Your task to perform on an android device: Go to Yahoo.com Image 0: 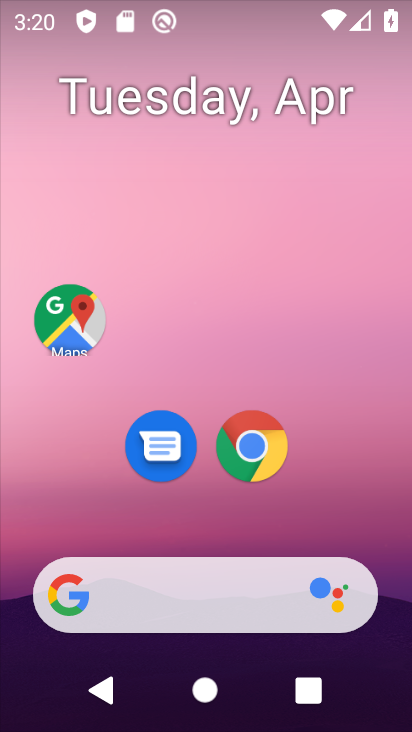
Step 0: drag from (284, 502) to (313, 109)
Your task to perform on an android device: Go to Yahoo.com Image 1: 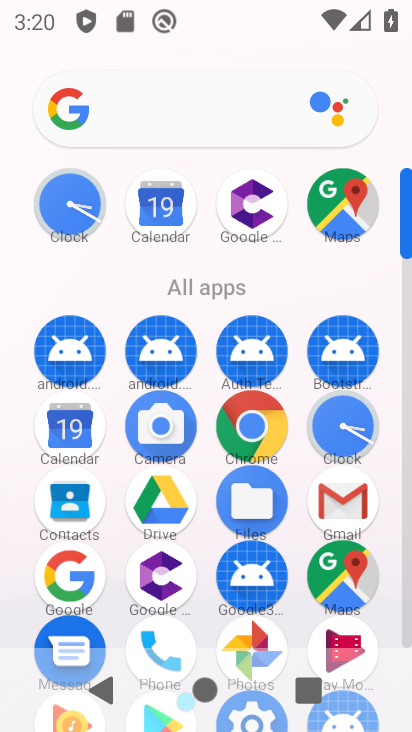
Step 1: click (243, 420)
Your task to perform on an android device: Go to Yahoo.com Image 2: 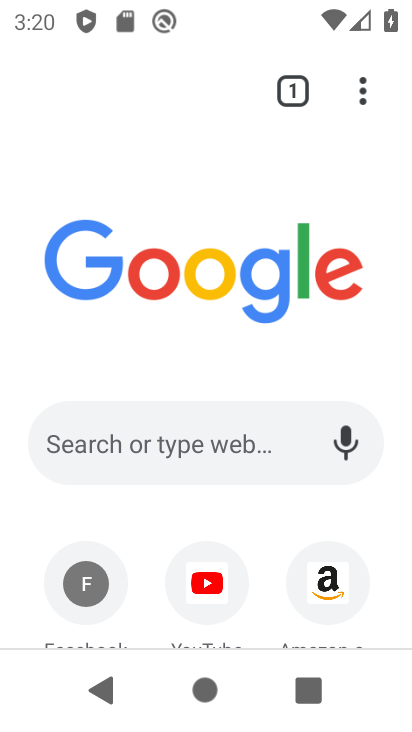
Step 2: click (164, 441)
Your task to perform on an android device: Go to Yahoo.com Image 3: 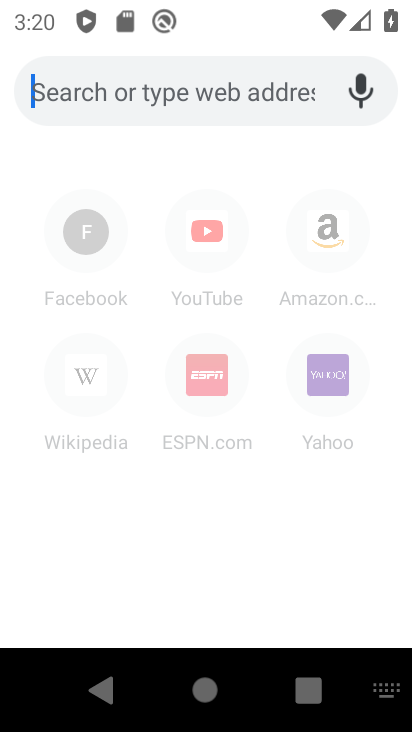
Step 3: type " Yahoo.com"
Your task to perform on an android device: Go to Yahoo.com Image 4: 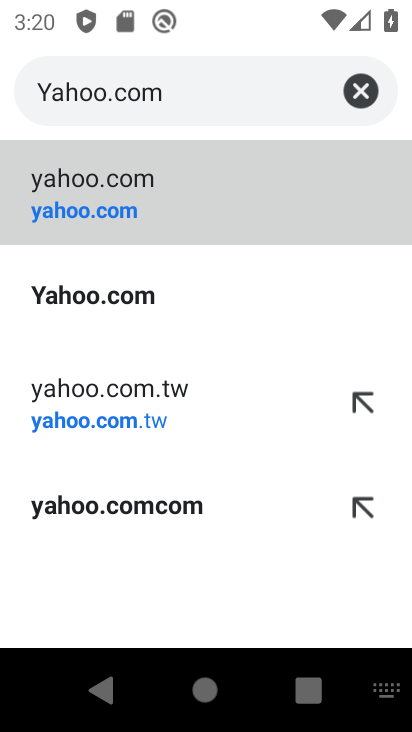
Step 4: click (104, 214)
Your task to perform on an android device: Go to Yahoo.com Image 5: 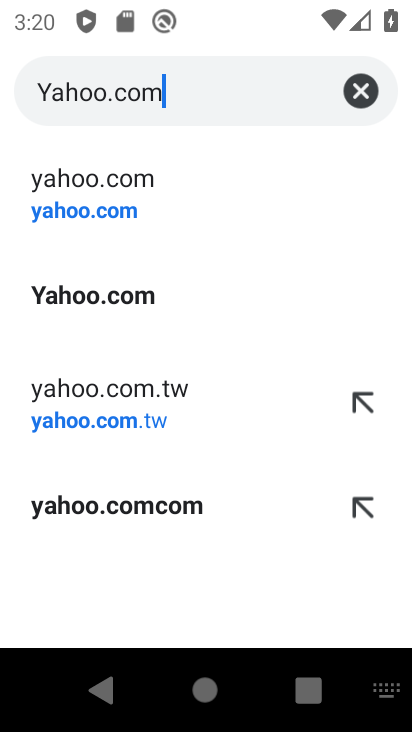
Step 5: click (76, 205)
Your task to perform on an android device: Go to Yahoo.com Image 6: 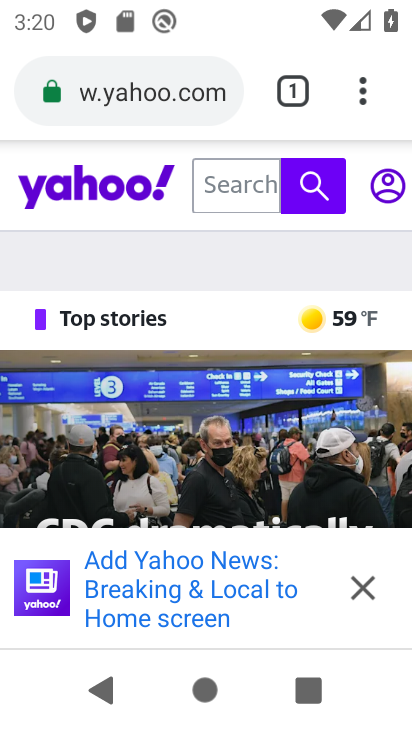
Step 6: task complete